Your task to perform on an android device: Go to CNN.com Image 0: 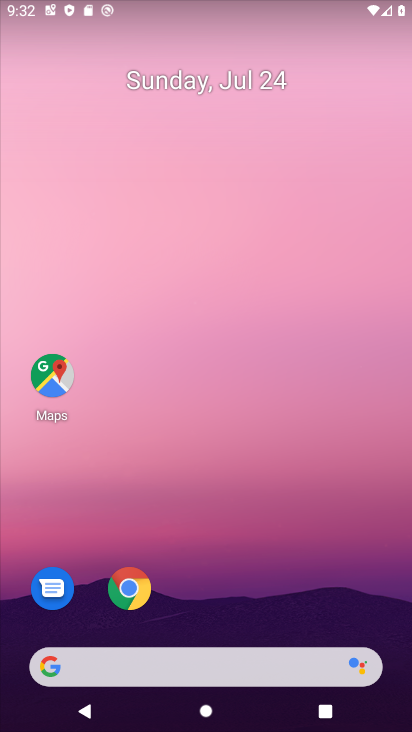
Step 0: click (131, 595)
Your task to perform on an android device: Go to CNN.com Image 1: 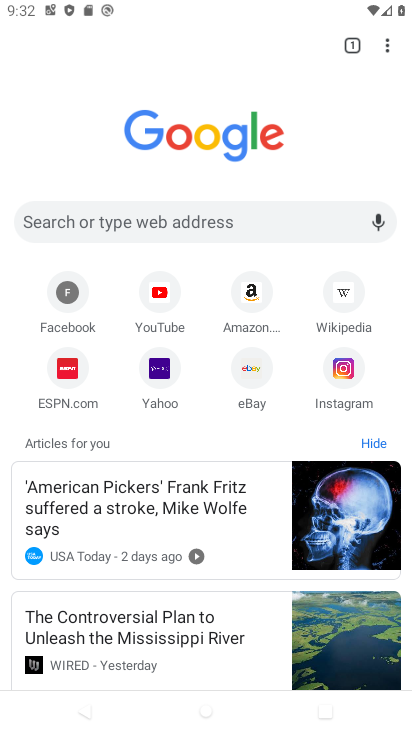
Step 1: click (112, 228)
Your task to perform on an android device: Go to CNN.com Image 2: 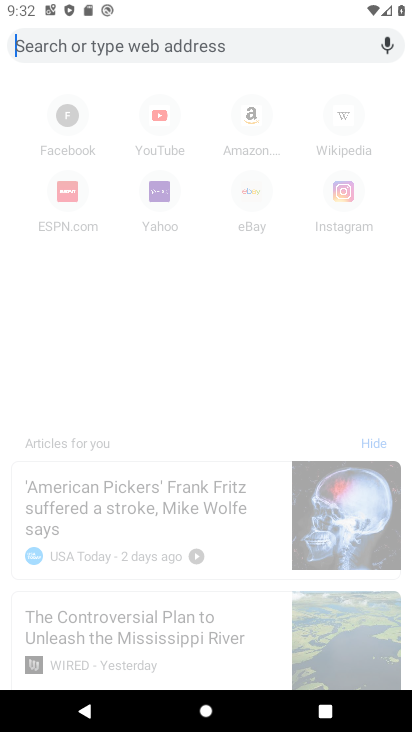
Step 2: type "cnn.com"
Your task to perform on an android device: Go to CNN.com Image 3: 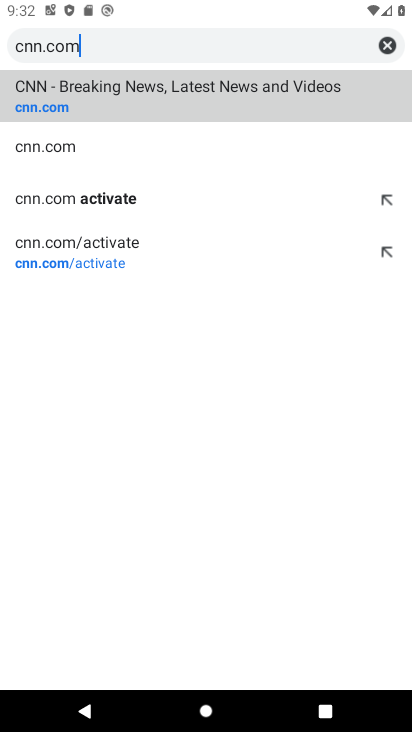
Step 3: click (39, 110)
Your task to perform on an android device: Go to CNN.com Image 4: 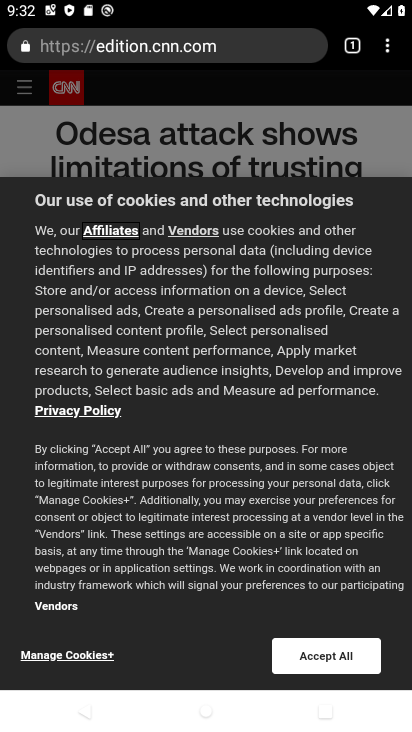
Step 4: click (350, 668)
Your task to perform on an android device: Go to CNN.com Image 5: 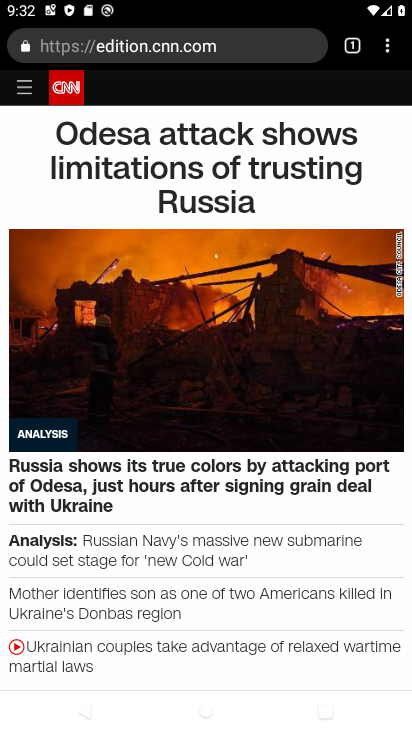
Step 5: task complete